Your task to perform on an android device: change your default location settings in chrome Image 0: 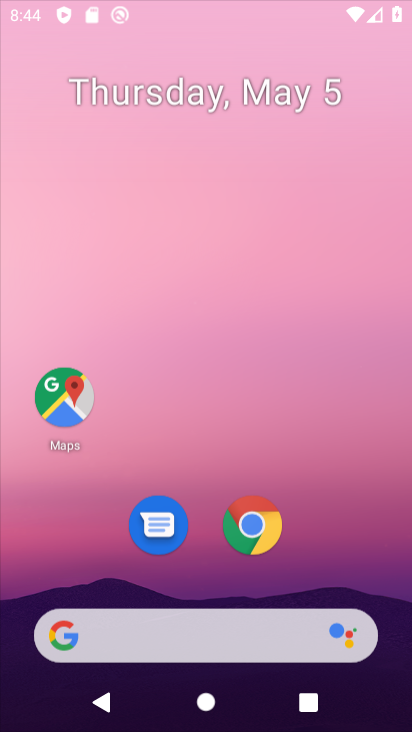
Step 0: click (139, 92)
Your task to perform on an android device: change your default location settings in chrome Image 1: 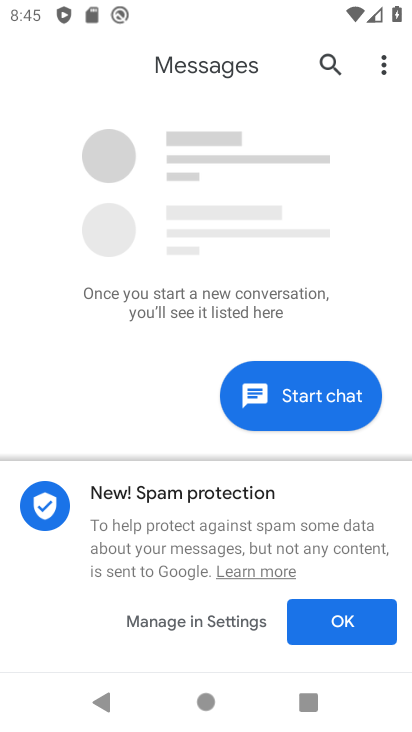
Step 1: click (351, 621)
Your task to perform on an android device: change your default location settings in chrome Image 2: 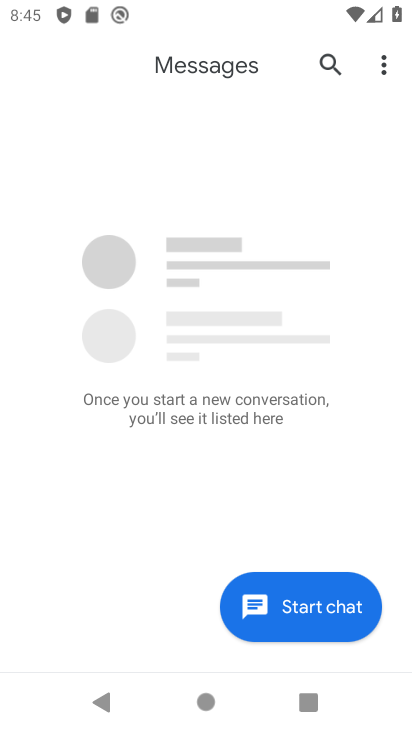
Step 2: click (350, 621)
Your task to perform on an android device: change your default location settings in chrome Image 3: 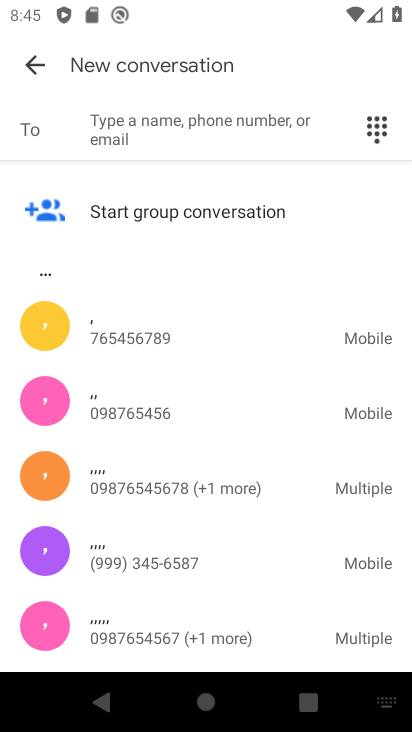
Step 3: click (26, 66)
Your task to perform on an android device: change your default location settings in chrome Image 4: 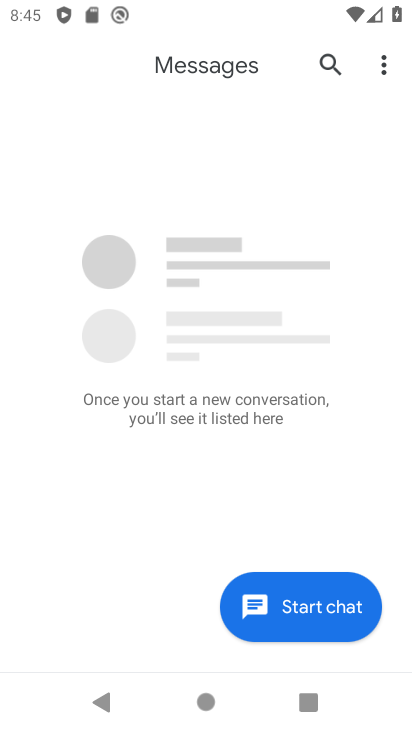
Step 4: press home button
Your task to perform on an android device: change your default location settings in chrome Image 5: 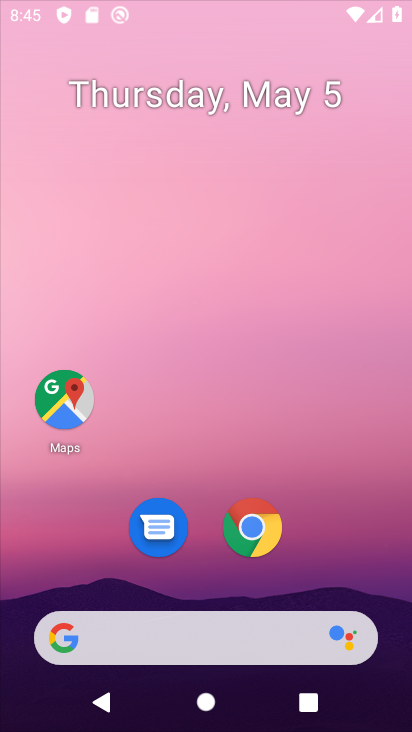
Step 5: press home button
Your task to perform on an android device: change your default location settings in chrome Image 6: 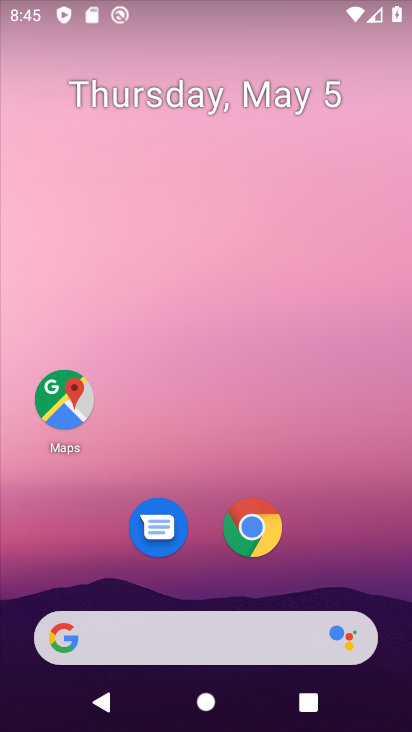
Step 6: drag from (383, 569) to (171, 100)
Your task to perform on an android device: change your default location settings in chrome Image 7: 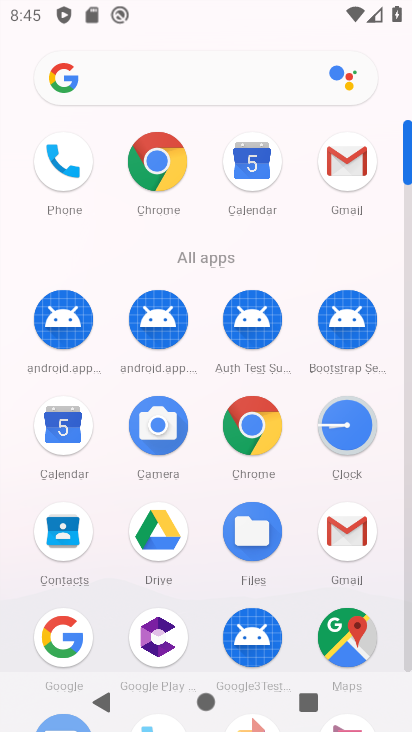
Step 7: click (159, 157)
Your task to perform on an android device: change your default location settings in chrome Image 8: 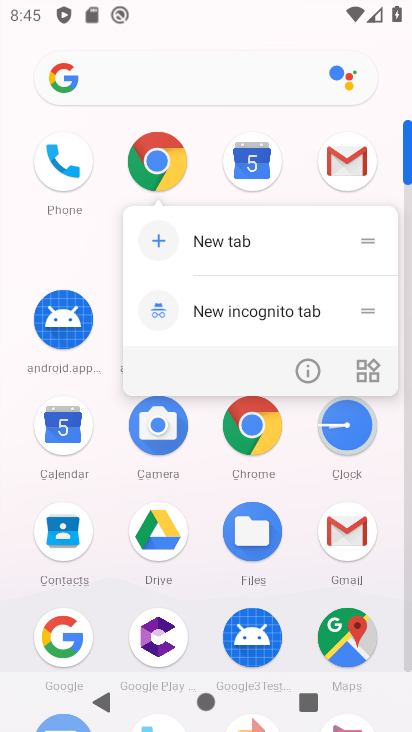
Step 8: click (157, 163)
Your task to perform on an android device: change your default location settings in chrome Image 9: 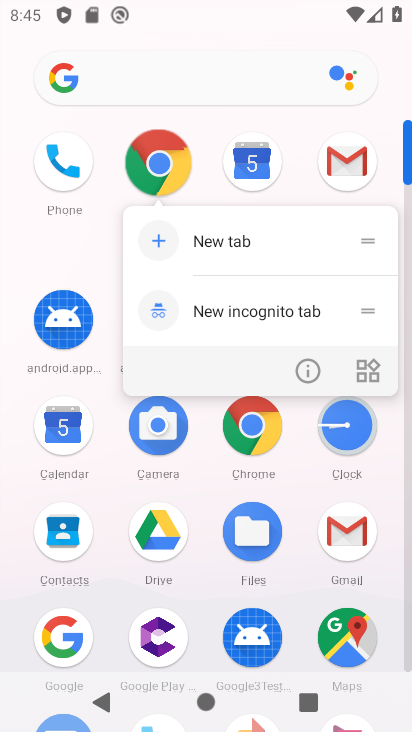
Step 9: click (162, 168)
Your task to perform on an android device: change your default location settings in chrome Image 10: 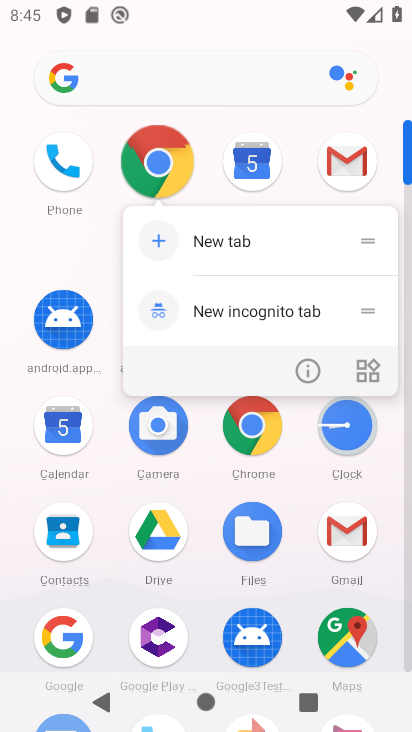
Step 10: click (171, 157)
Your task to perform on an android device: change your default location settings in chrome Image 11: 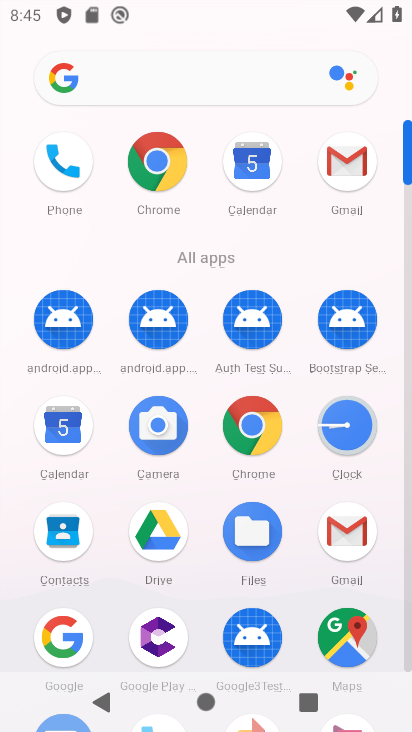
Step 11: click (172, 157)
Your task to perform on an android device: change your default location settings in chrome Image 12: 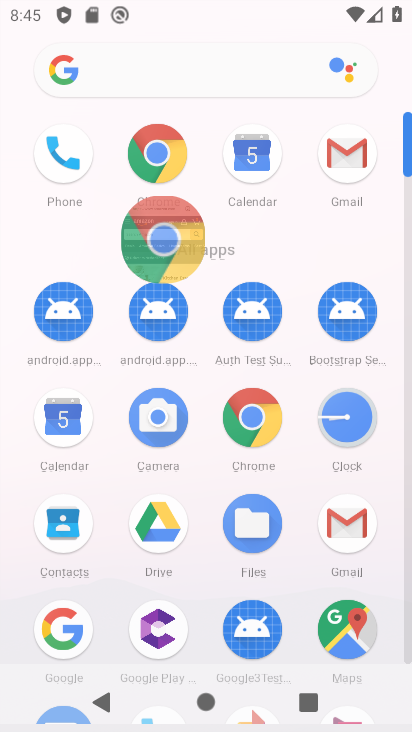
Step 12: click (172, 157)
Your task to perform on an android device: change your default location settings in chrome Image 13: 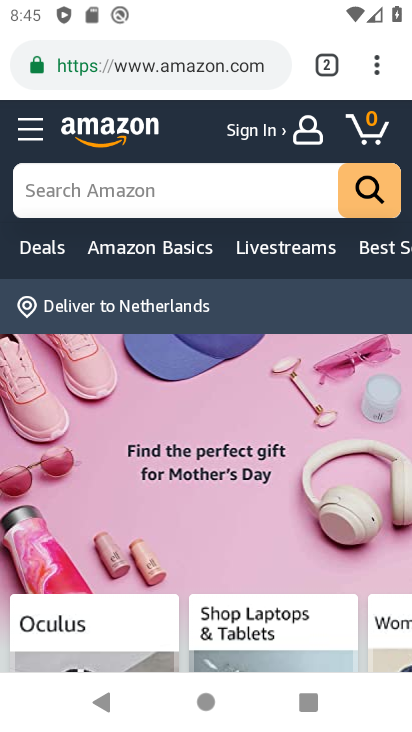
Step 13: click (374, 66)
Your task to perform on an android device: change your default location settings in chrome Image 14: 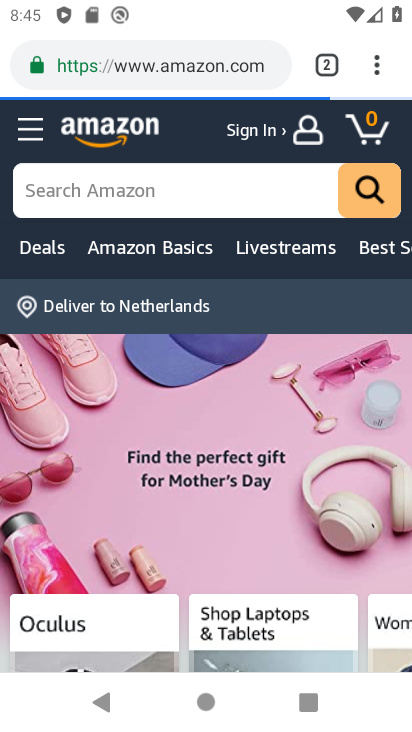
Step 14: click (374, 66)
Your task to perform on an android device: change your default location settings in chrome Image 15: 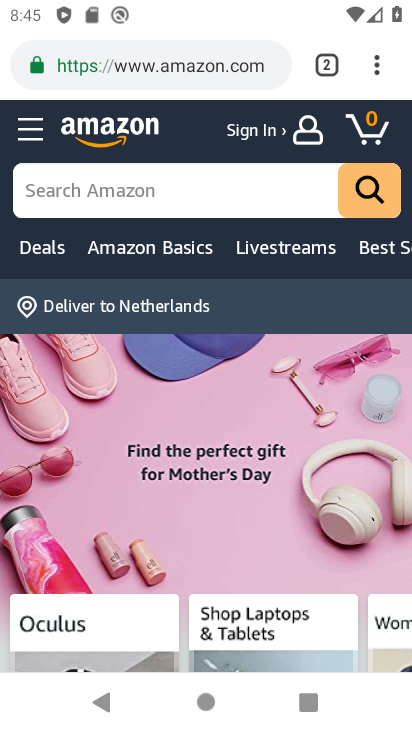
Step 15: click (374, 66)
Your task to perform on an android device: change your default location settings in chrome Image 16: 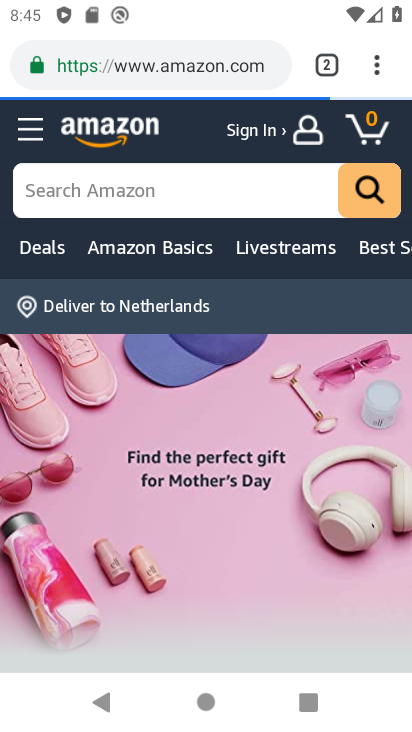
Step 16: click (374, 66)
Your task to perform on an android device: change your default location settings in chrome Image 17: 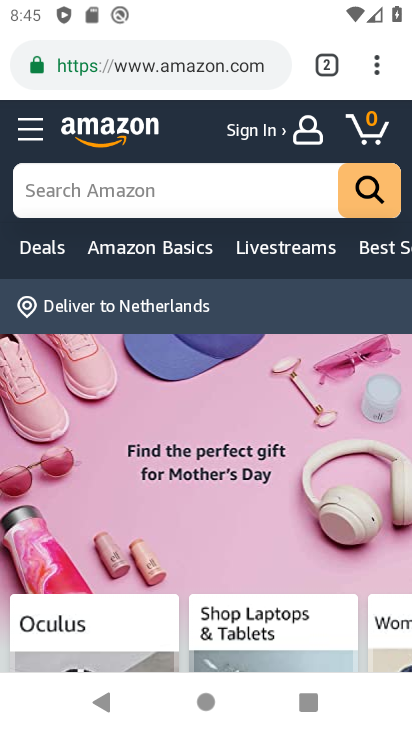
Step 17: click (374, 66)
Your task to perform on an android device: change your default location settings in chrome Image 18: 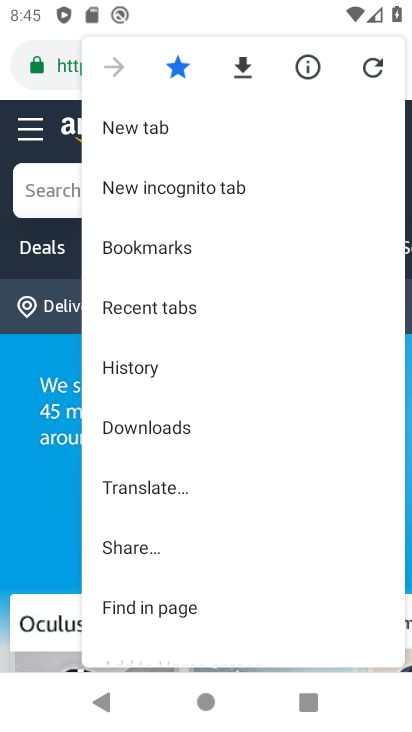
Step 18: drag from (206, 613) to (244, 74)
Your task to perform on an android device: change your default location settings in chrome Image 19: 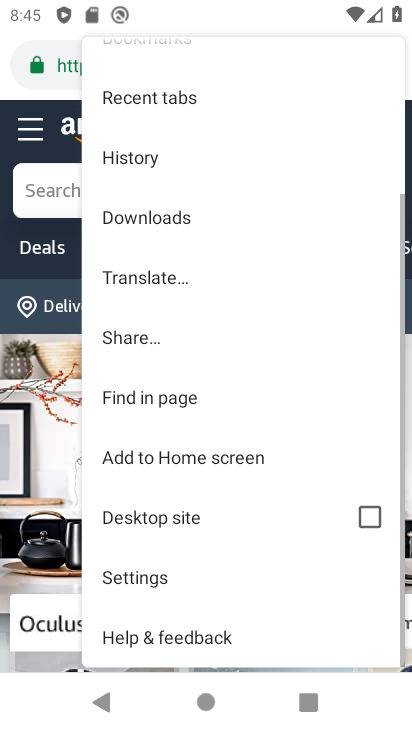
Step 19: click (134, 574)
Your task to perform on an android device: change your default location settings in chrome Image 20: 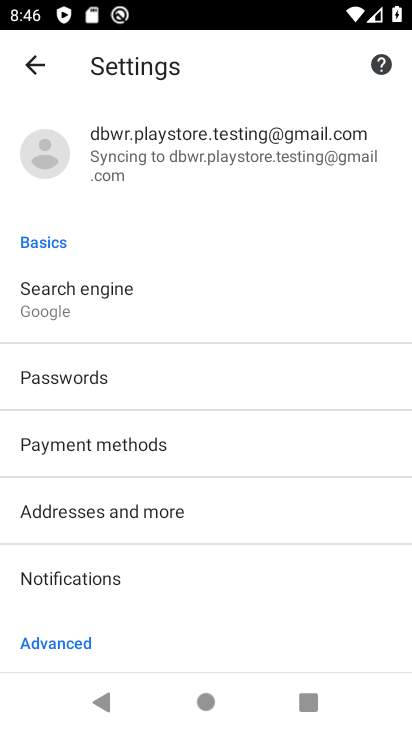
Step 20: drag from (131, 601) to (148, 151)
Your task to perform on an android device: change your default location settings in chrome Image 21: 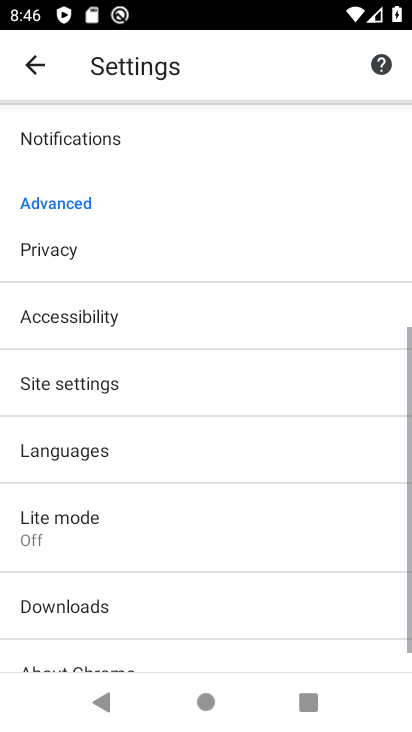
Step 21: drag from (168, 549) to (160, 305)
Your task to perform on an android device: change your default location settings in chrome Image 22: 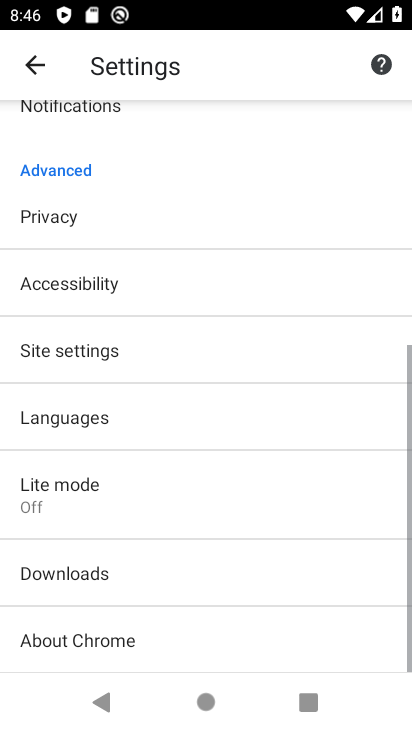
Step 22: click (68, 349)
Your task to perform on an android device: change your default location settings in chrome Image 23: 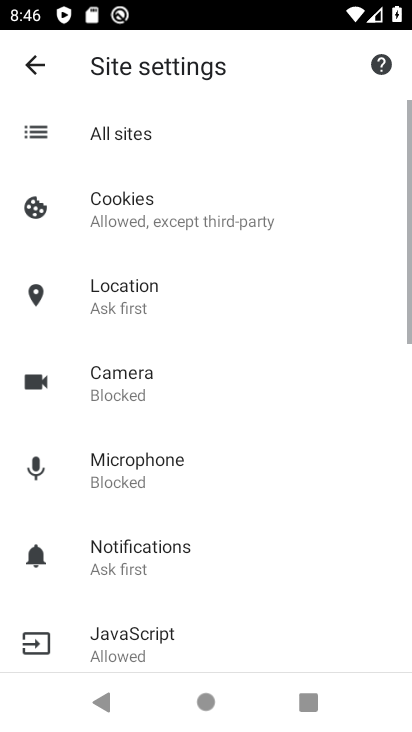
Step 23: click (113, 301)
Your task to perform on an android device: change your default location settings in chrome Image 24: 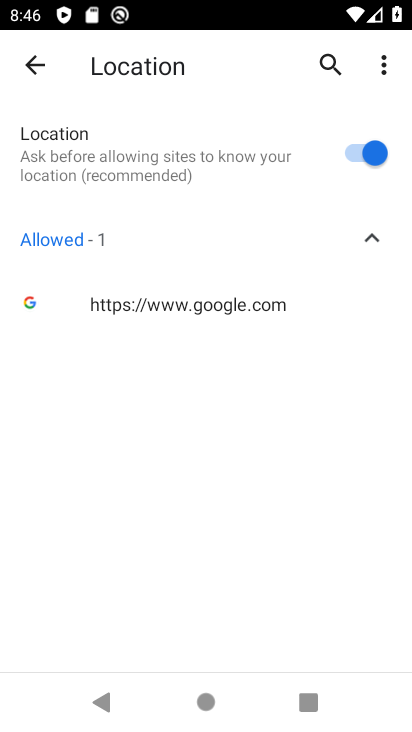
Step 24: click (370, 149)
Your task to perform on an android device: change your default location settings in chrome Image 25: 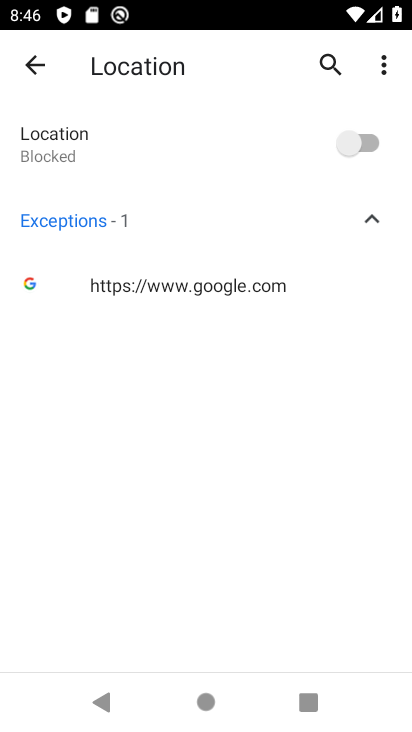
Step 25: task complete